Your task to perform on an android device: empty trash in google photos Image 0: 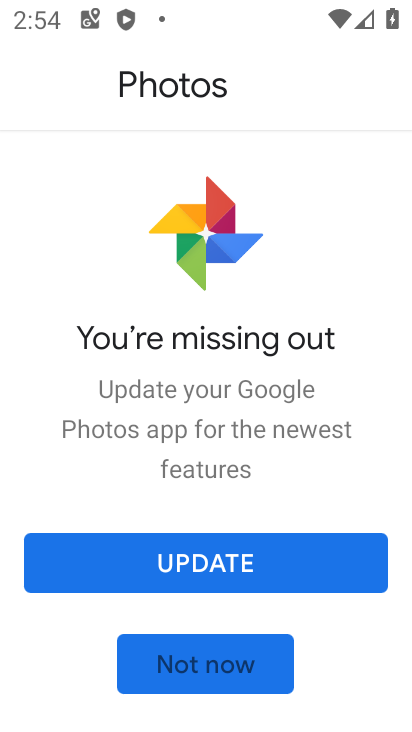
Step 0: click (13, 501)
Your task to perform on an android device: empty trash in google photos Image 1: 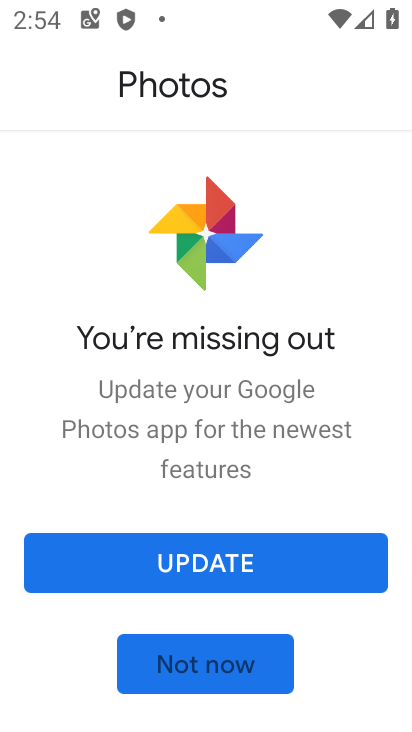
Step 1: press home button
Your task to perform on an android device: empty trash in google photos Image 2: 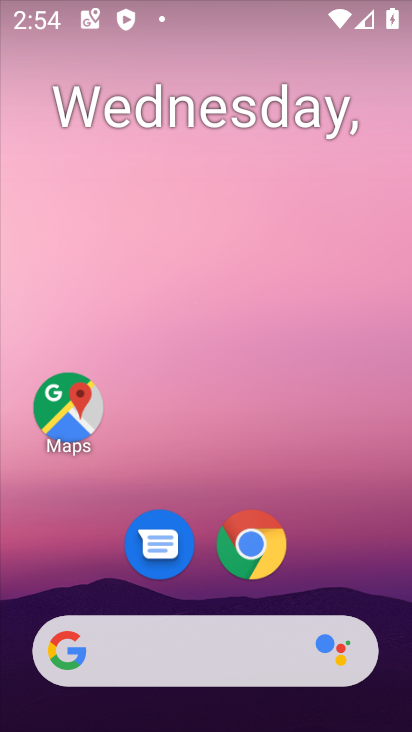
Step 2: drag from (376, 584) to (273, 171)
Your task to perform on an android device: empty trash in google photos Image 3: 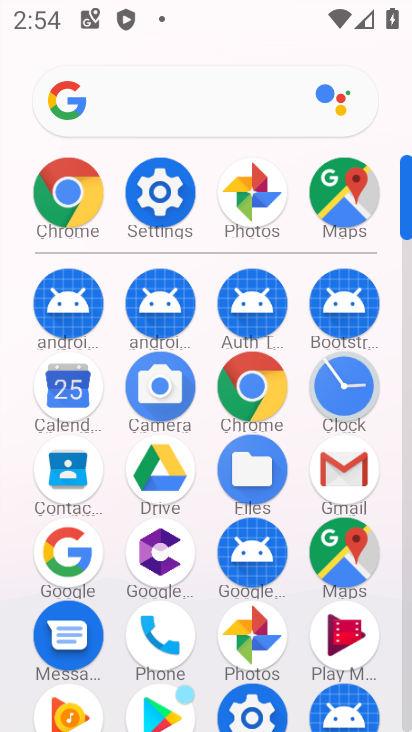
Step 3: click (260, 625)
Your task to perform on an android device: empty trash in google photos Image 4: 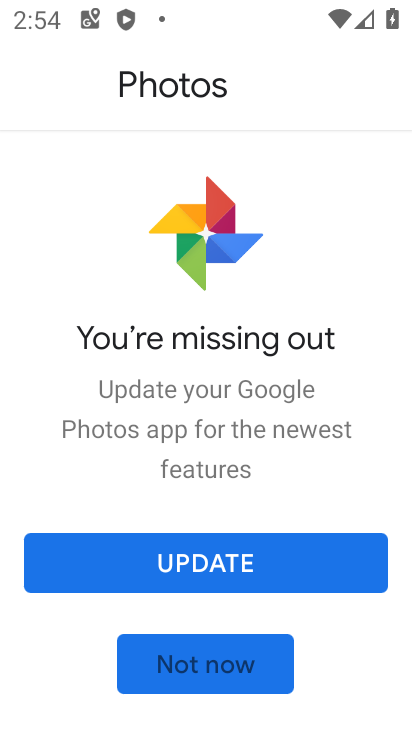
Step 4: click (259, 586)
Your task to perform on an android device: empty trash in google photos Image 5: 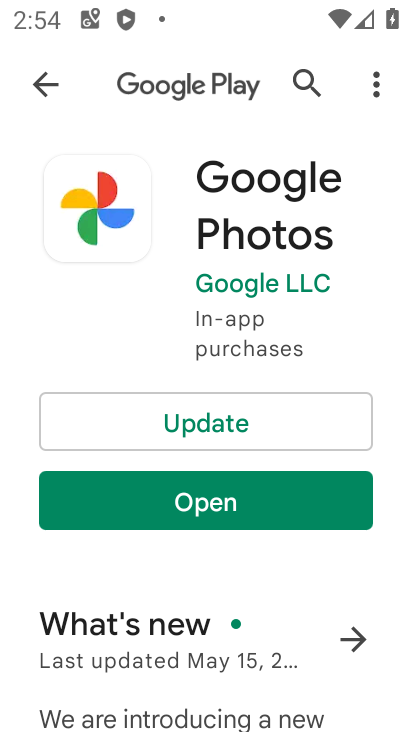
Step 5: click (289, 435)
Your task to perform on an android device: empty trash in google photos Image 6: 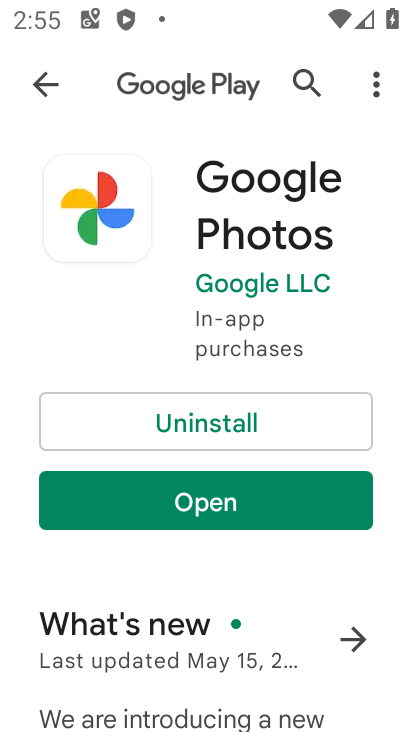
Step 6: click (292, 503)
Your task to perform on an android device: empty trash in google photos Image 7: 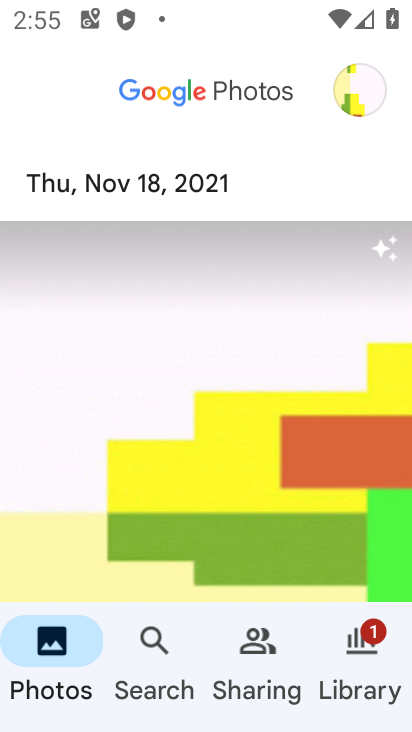
Step 7: click (395, 102)
Your task to perform on an android device: empty trash in google photos Image 8: 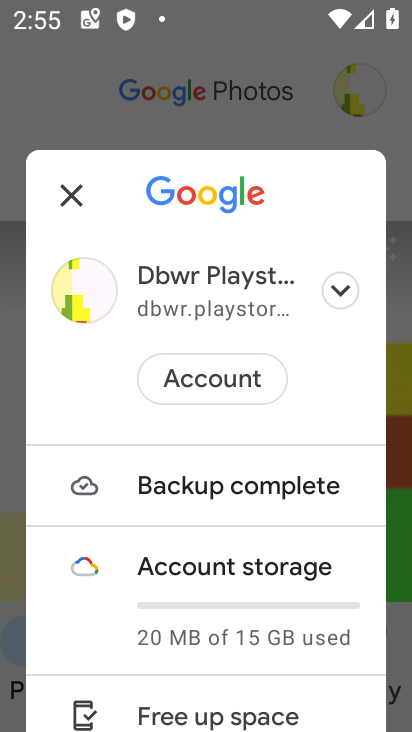
Step 8: drag from (264, 628) to (234, 346)
Your task to perform on an android device: empty trash in google photos Image 9: 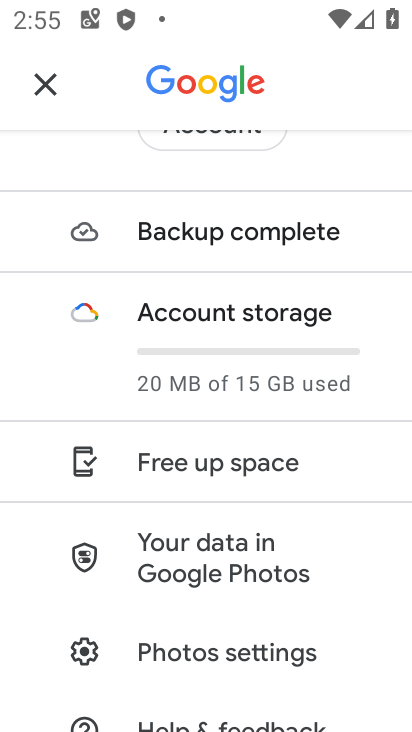
Step 9: drag from (231, 650) to (237, 432)
Your task to perform on an android device: empty trash in google photos Image 10: 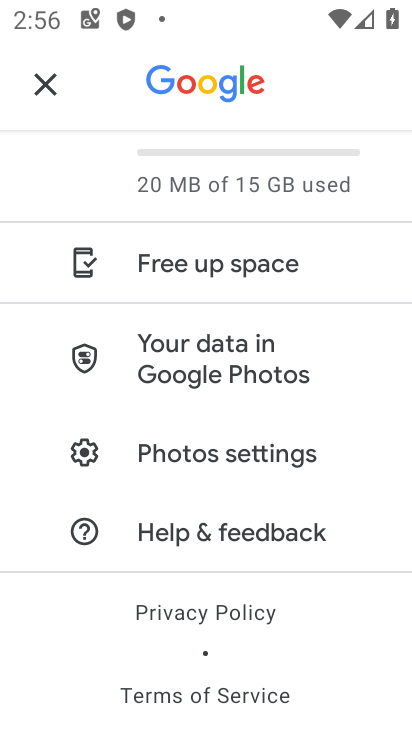
Step 10: drag from (257, 281) to (244, 648)
Your task to perform on an android device: empty trash in google photos Image 11: 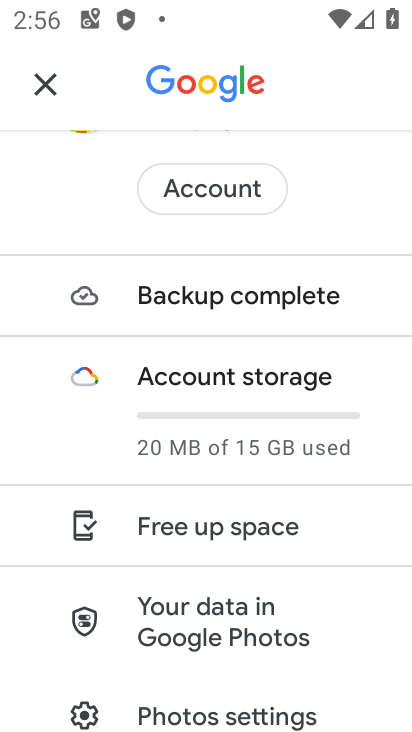
Step 11: click (62, 86)
Your task to perform on an android device: empty trash in google photos Image 12: 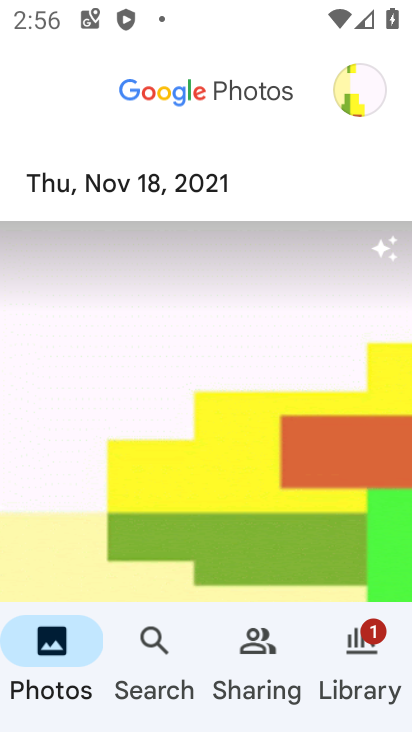
Step 12: click (365, 646)
Your task to perform on an android device: empty trash in google photos Image 13: 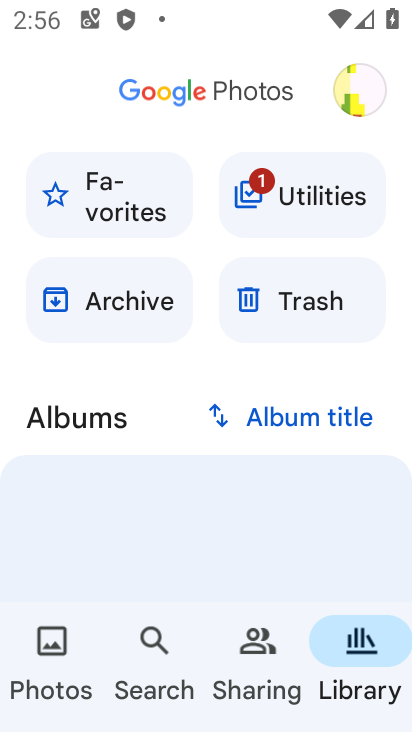
Step 13: click (301, 293)
Your task to perform on an android device: empty trash in google photos Image 14: 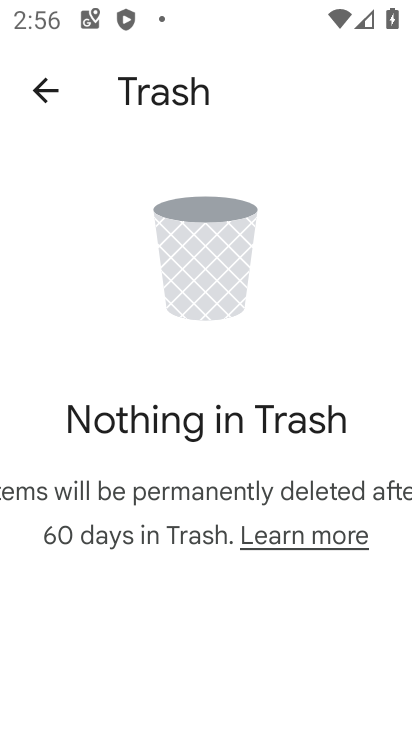
Step 14: task complete